Your task to perform on an android device: Open Youtube and go to the subscriptions tab Image 0: 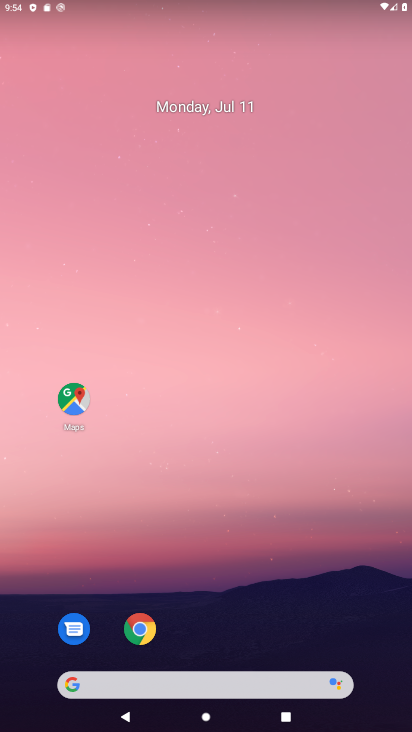
Step 0: drag from (221, 628) to (186, 197)
Your task to perform on an android device: Open Youtube and go to the subscriptions tab Image 1: 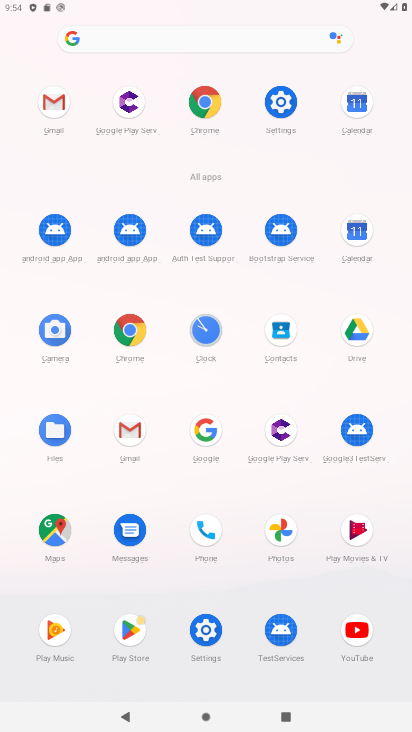
Step 1: click (342, 625)
Your task to perform on an android device: Open Youtube and go to the subscriptions tab Image 2: 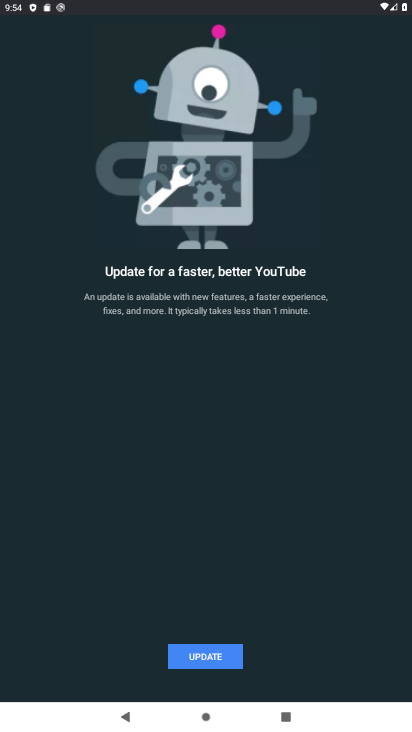
Step 2: click (214, 673)
Your task to perform on an android device: Open Youtube and go to the subscriptions tab Image 3: 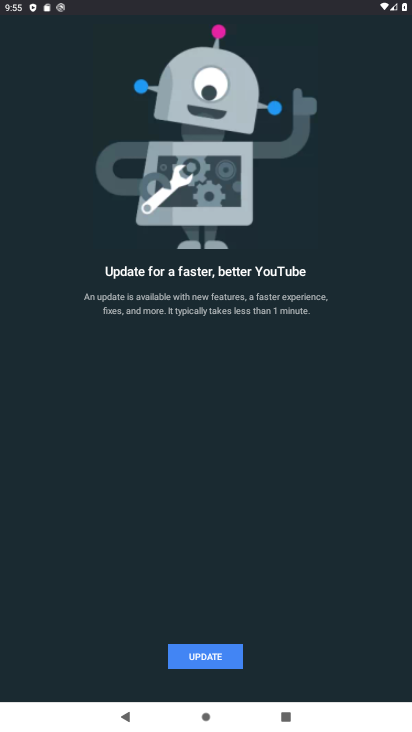
Step 3: click (186, 666)
Your task to perform on an android device: Open Youtube and go to the subscriptions tab Image 4: 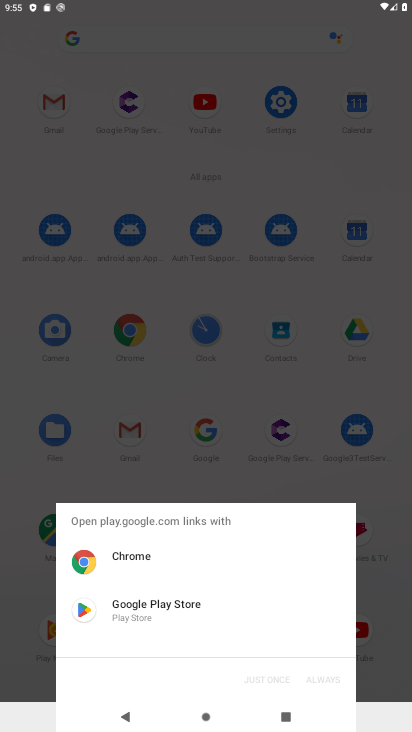
Step 4: click (163, 605)
Your task to perform on an android device: Open Youtube and go to the subscriptions tab Image 5: 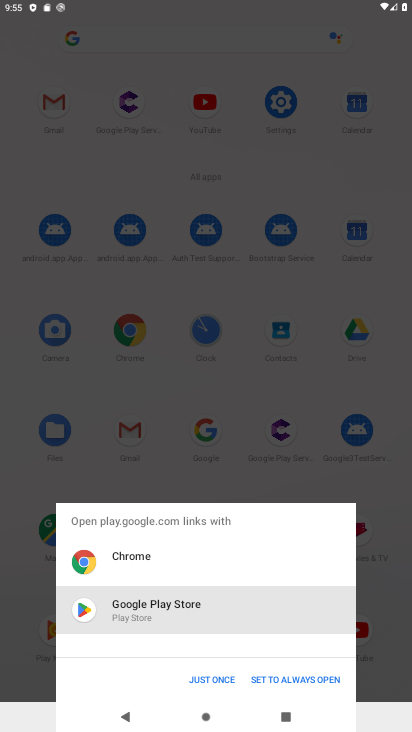
Step 5: click (201, 670)
Your task to perform on an android device: Open Youtube and go to the subscriptions tab Image 6: 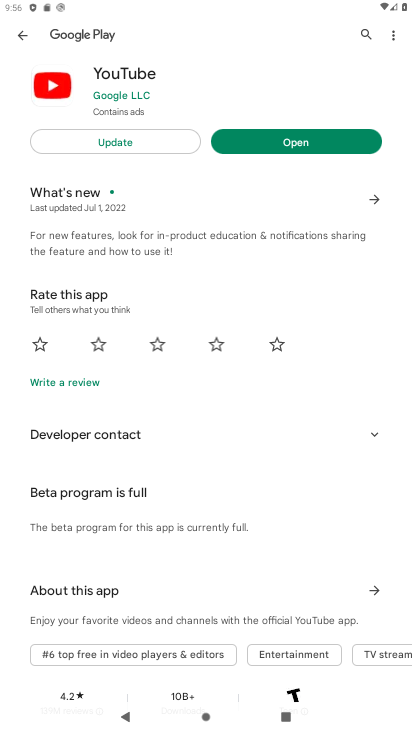
Step 6: click (118, 153)
Your task to perform on an android device: Open Youtube and go to the subscriptions tab Image 7: 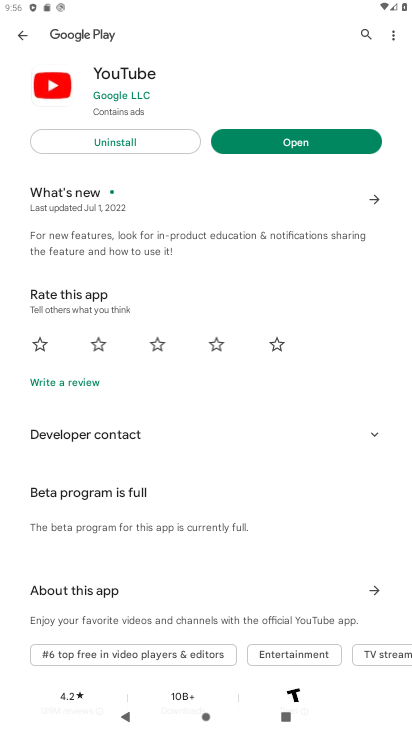
Step 7: click (291, 146)
Your task to perform on an android device: Open Youtube and go to the subscriptions tab Image 8: 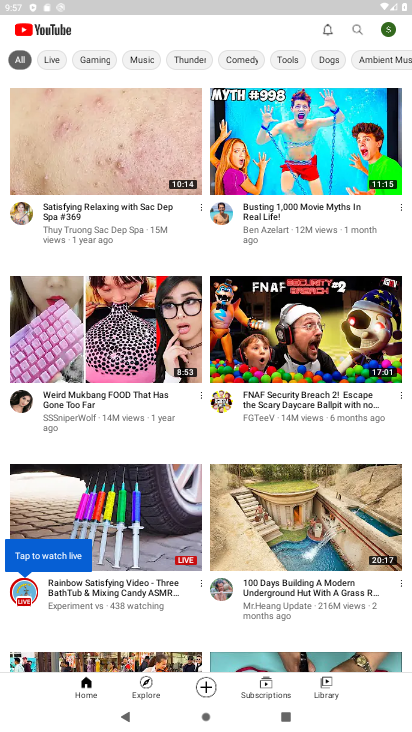
Step 8: click (266, 679)
Your task to perform on an android device: Open Youtube and go to the subscriptions tab Image 9: 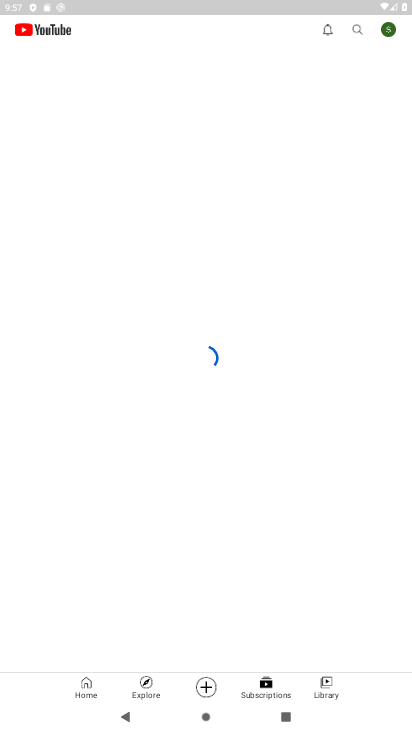
Step 9: task complete